Your task to perform on an android device: turn on notifications settings in the gmail app Image 0: 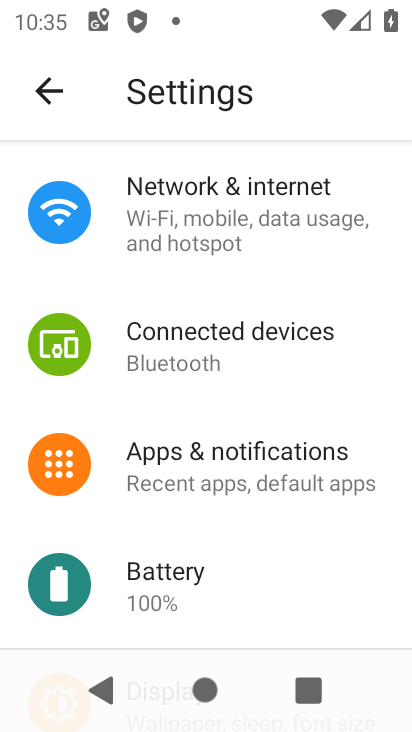
Step 0: press home button
Your task to perform on an android device: turn on notifications settings in the gmail app Image 1: 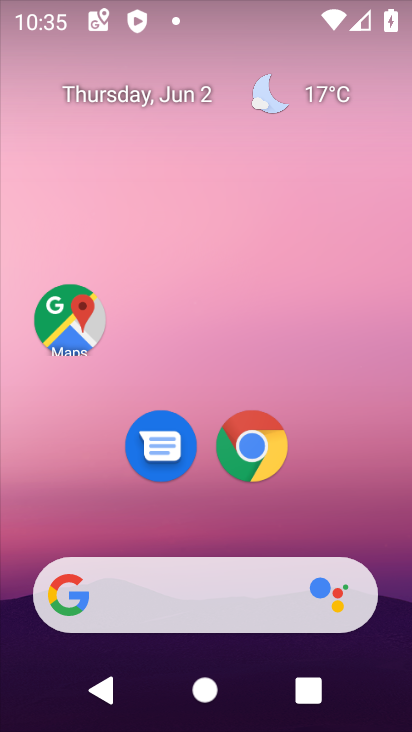
Step 1: drag from (329, 508) to (302, 191)
Your task to perform on an android device: turn on notifications settings in the gmail app Image 2: 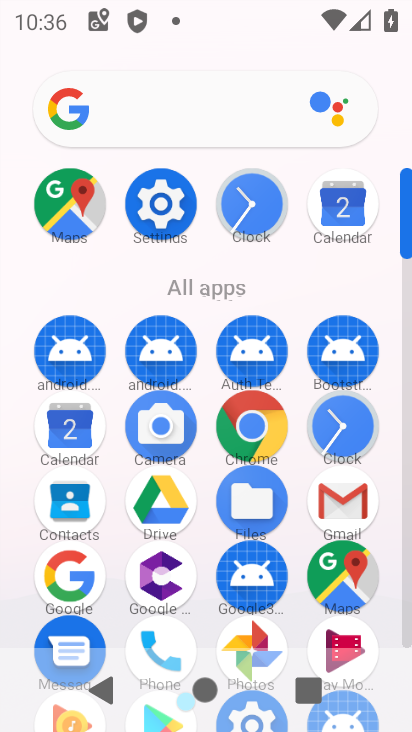
Step 2: click (339, 519)
Your task to perform on an android device: turn on notifications settings in the gmail app Image 3: 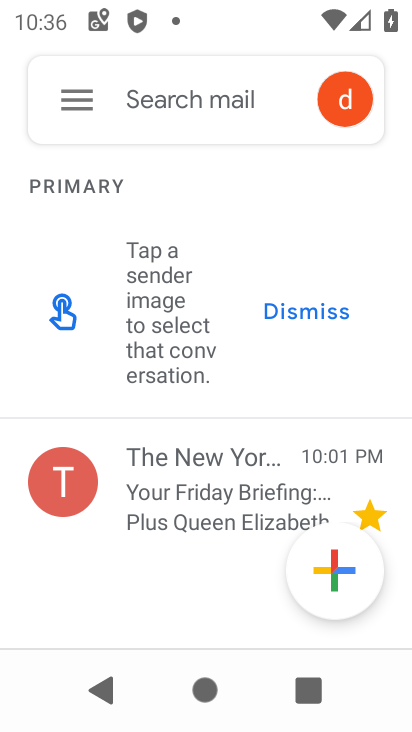
Step 3: click (85, 91)
Your task to perform on an android device: turn on notifications settings in the gmail app Image 4: 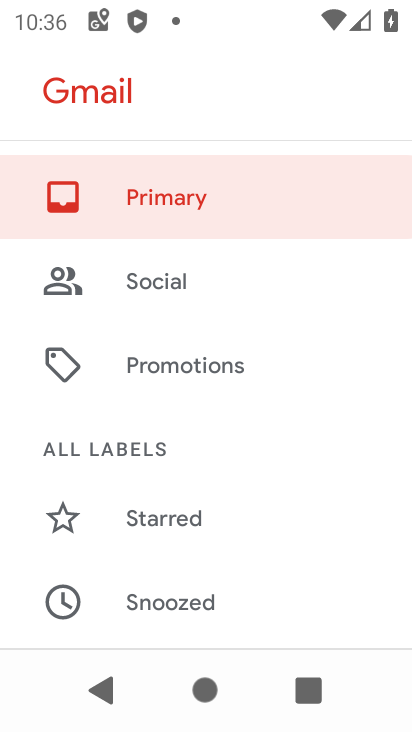
Step 4: drag from (193, 503) to (214, 172)
Your task to perform on an android device: turn on notifications settings in the gmail app Image 5: 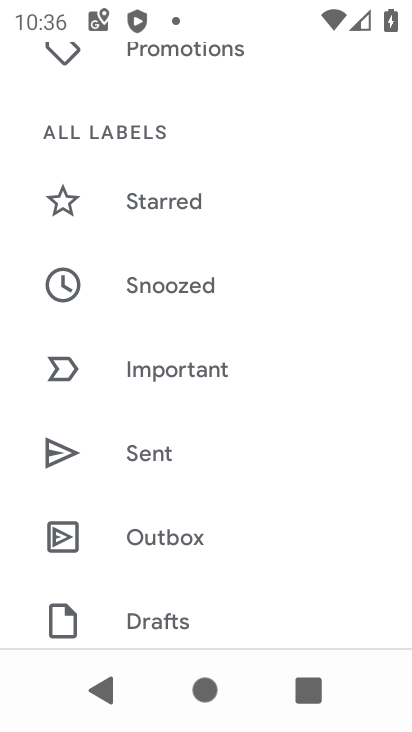
Step 5: drag from (156, 585) to (239, 244)
Your task to perform on an android device: turn on notifications settings in the gmail app Image 6: 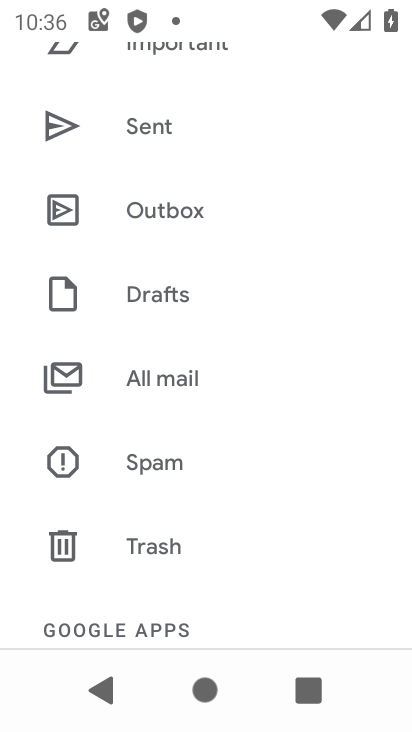
Step 6: click (236, 191)
Your task to perform on an android device: turn on notifications settings in the gmail app Image 7: 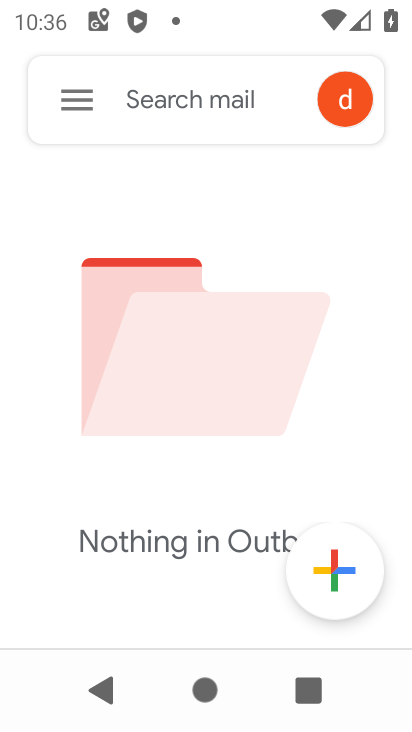
Step 7: click (85, 92)
Your task to perform on an android device: turn on notifications settings in the gmail app Image 8: 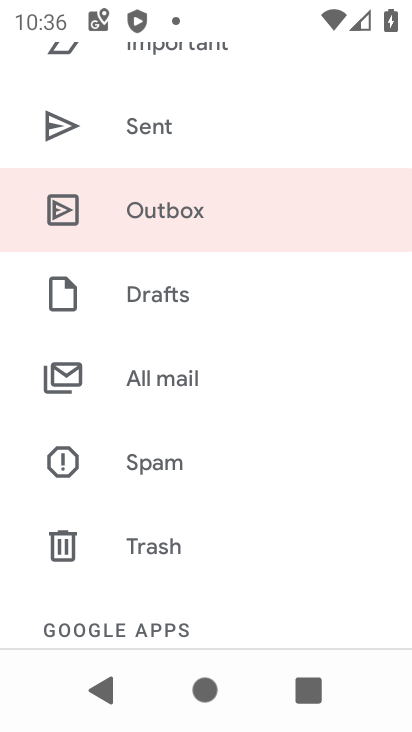
Step 8: drag from (184, 496) to (285, 59)
Your task to perform on an android device: turn on notifications settings in the gmail app Image 9: 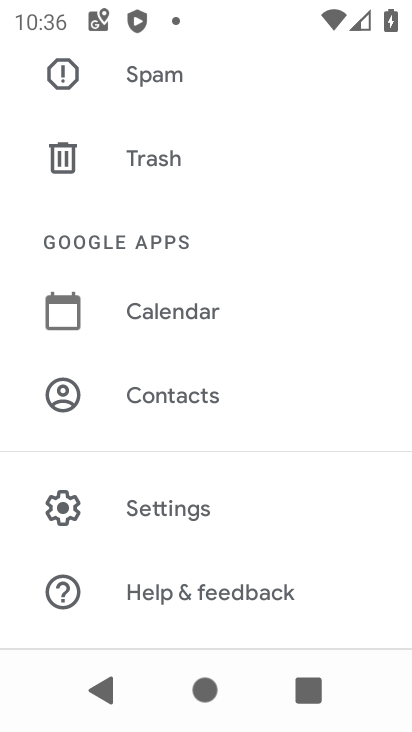
Step 9: click (155, 518)
Your task to perform on an android device: turn on notifications settings in the gmail app Image 10: 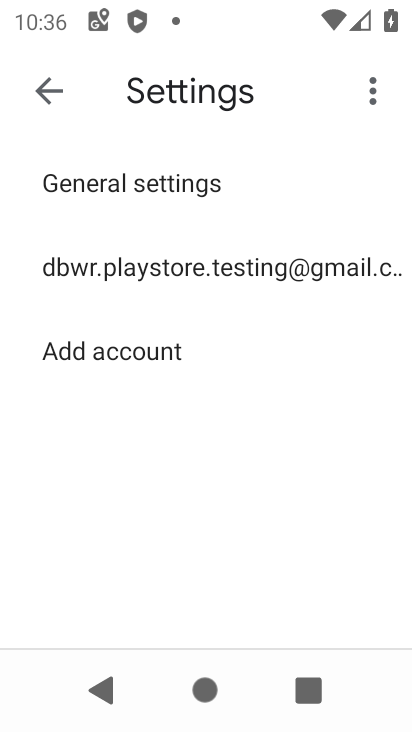
Step 10: click (210, 273)
Your task to perform on an android device: turn on notifications settings in the gmail app Image 11: 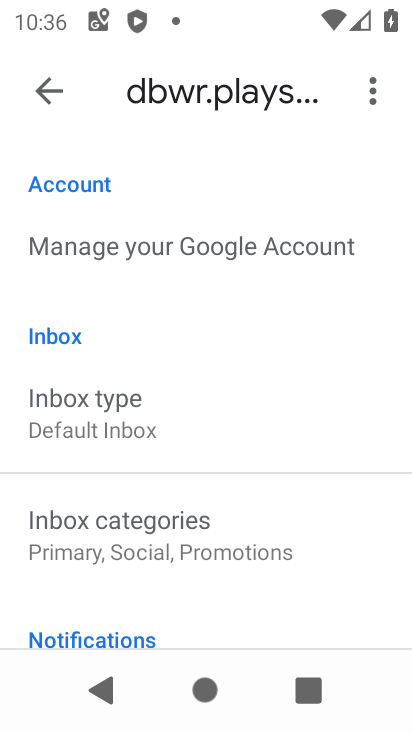
Step 11: drag from (222, 547) to (257, 309)
Your task to perform on an android device: turn on notifications settings in the gmail app Image 12: 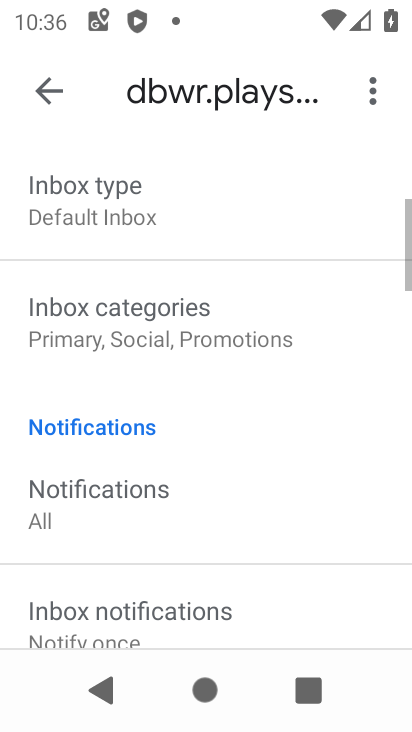
Step 12: click (261, 297)
Your task to perform on an android device: turn on notifications settings in the gmail app Image 13: 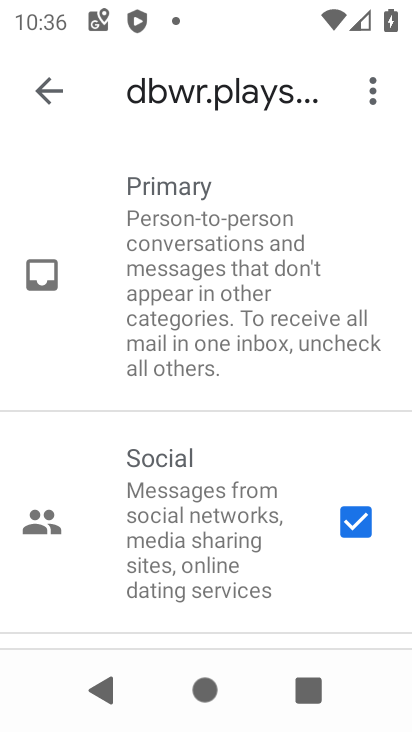
Step 13: click (58, 95)
Your task to perform on an android device: turn on notifications settings in the gmail app Image 14: 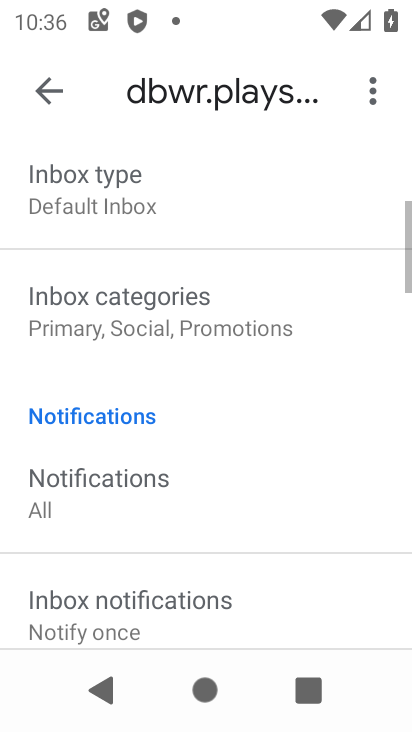
Step 14: drag from (245, 556) to (289, 171)
Your task to perform on an android device: turn on notifications settings in the gmail app Image 15: 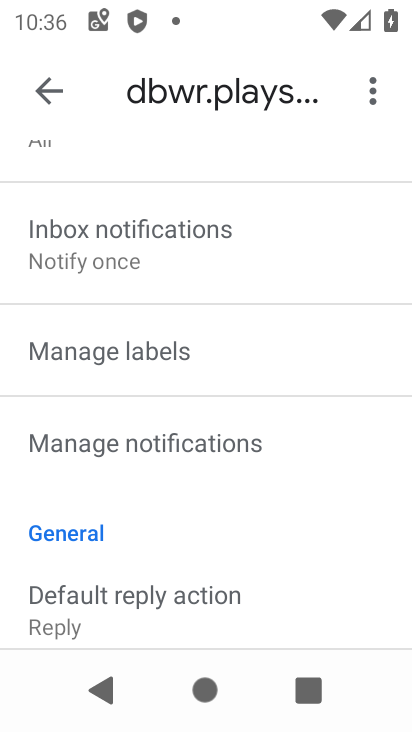
Step 15: click (182, 455)
Your task to perform on an android device: turn on notifications settings in the gmail app Image 16: 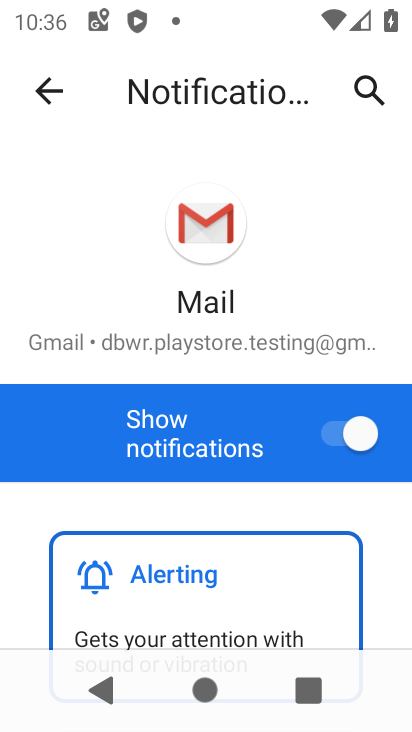
Step 16: task complete